Your task to perform on an android device: Open the stopwatch Image 0: 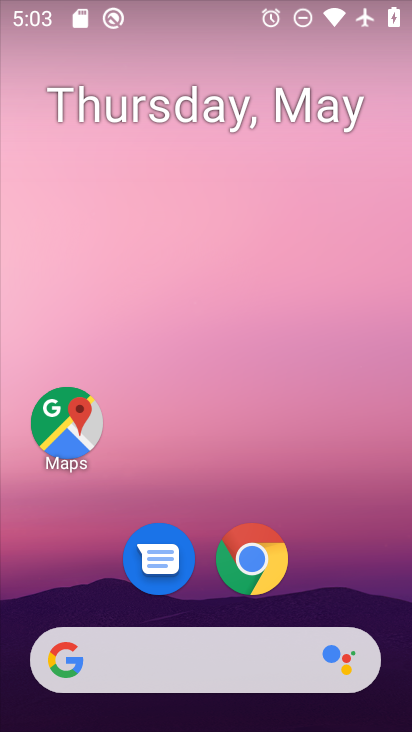
Step 0: drag from (357, 552) to (116, 28)
Your task to perform on an android device: Open the stopwatch Image 1: 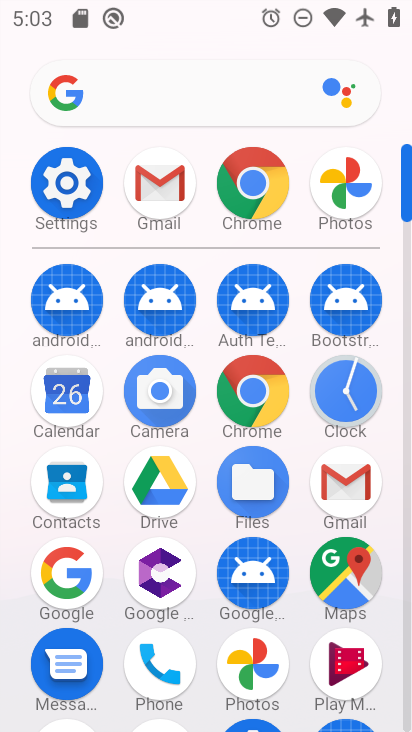
Step 1: click (379, 387)
Your task to perform on an android device: Open the stopwatch Image 2: 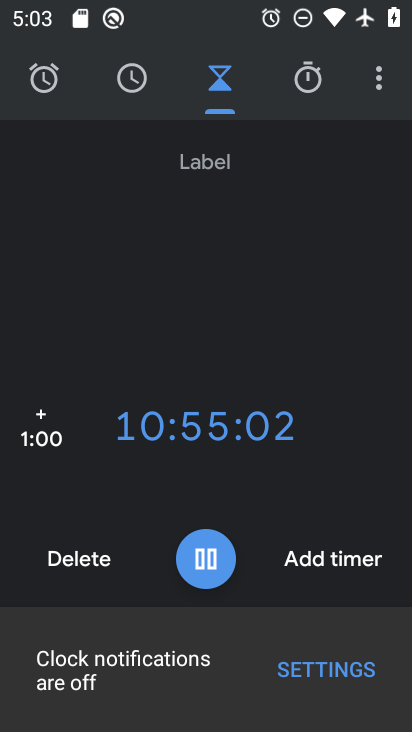
Step 2: click (306, 82)
Your task to perform on an android device: Open the stopwatch Image 3: 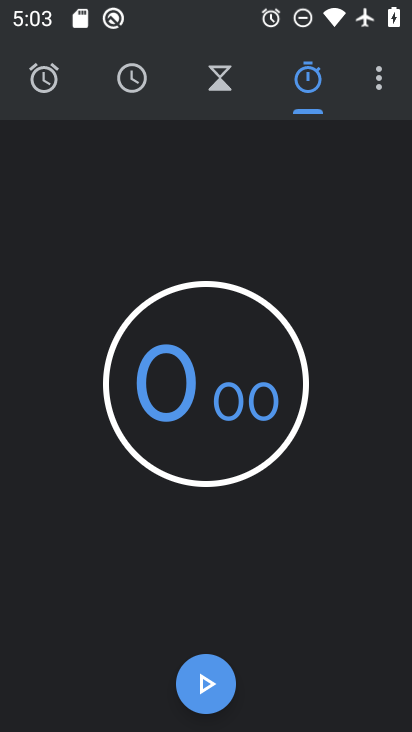
Step 3: task complete